Your task to perform on an android device: visit the assistant section in the google photos Image 0: 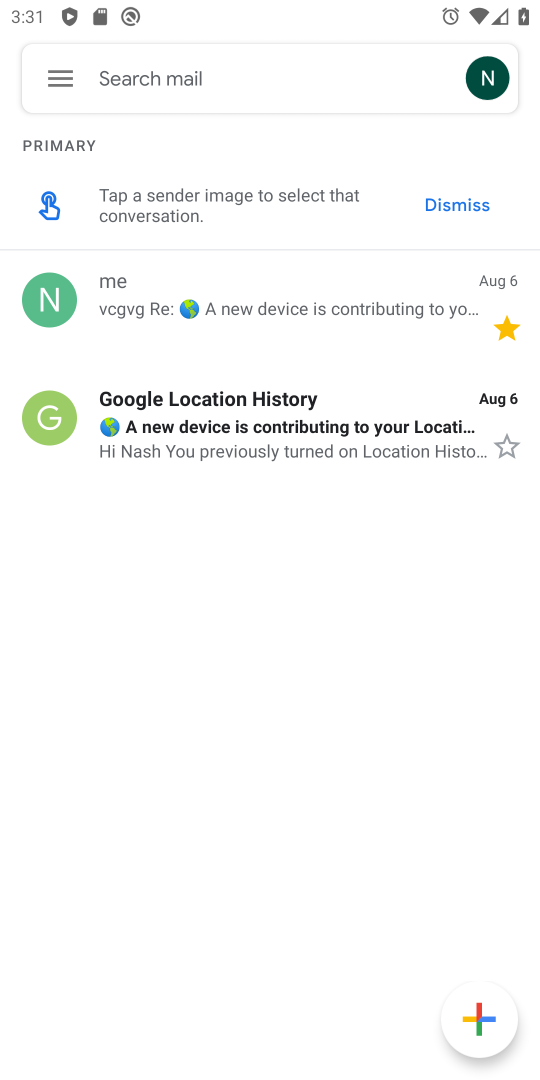
Step 0: press back button
Your task to perform on an android device: visit the assistant section in the google photos Image 1: 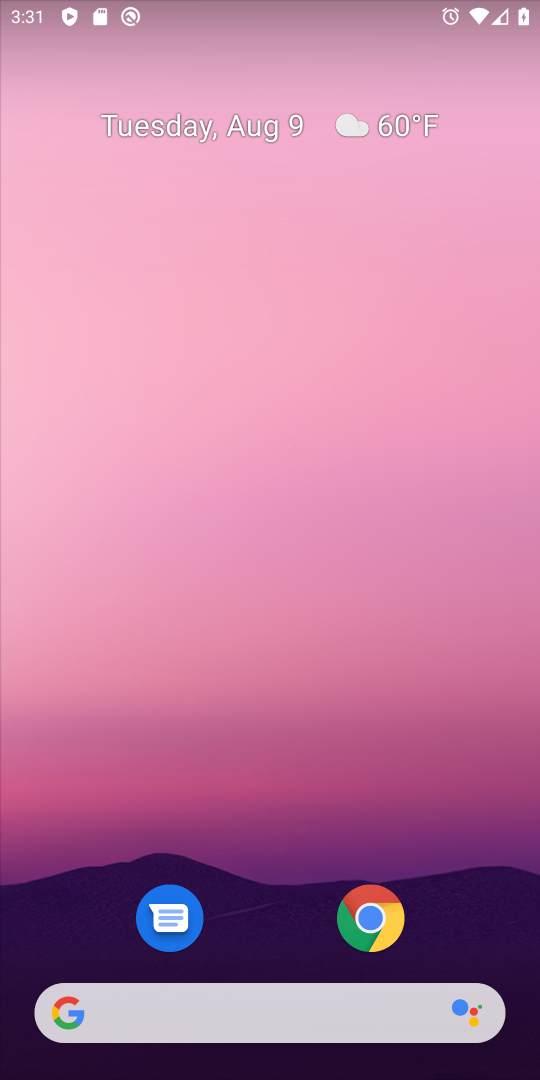
Step 1: drag from (242, 930) to (277, 12)
Your task to perform on an android device: visit the assistant section in the google photos Image 2: 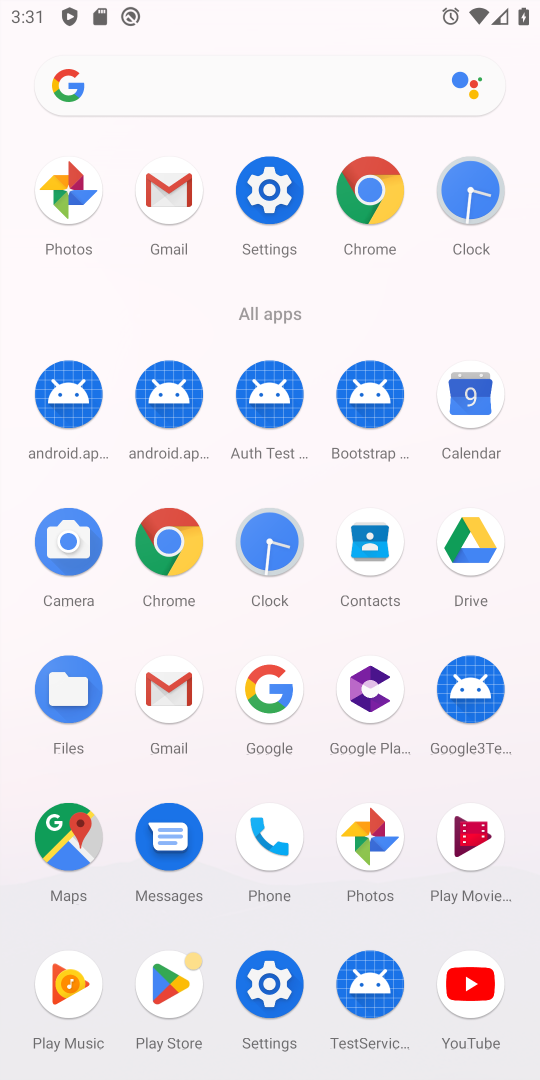
Step 2: click (377, 853)
Your task to perform on an android device: visit the assistant section in the google photos Image 3: 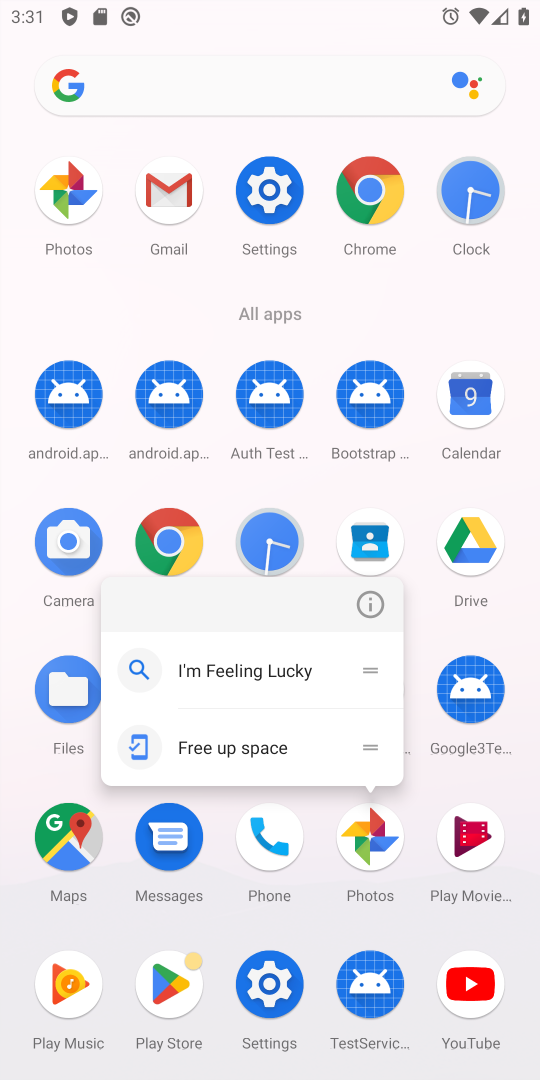
Step 3: click (360, 848)
Your task to perform on an android device: visit the assistant section in the google photos Image 4: 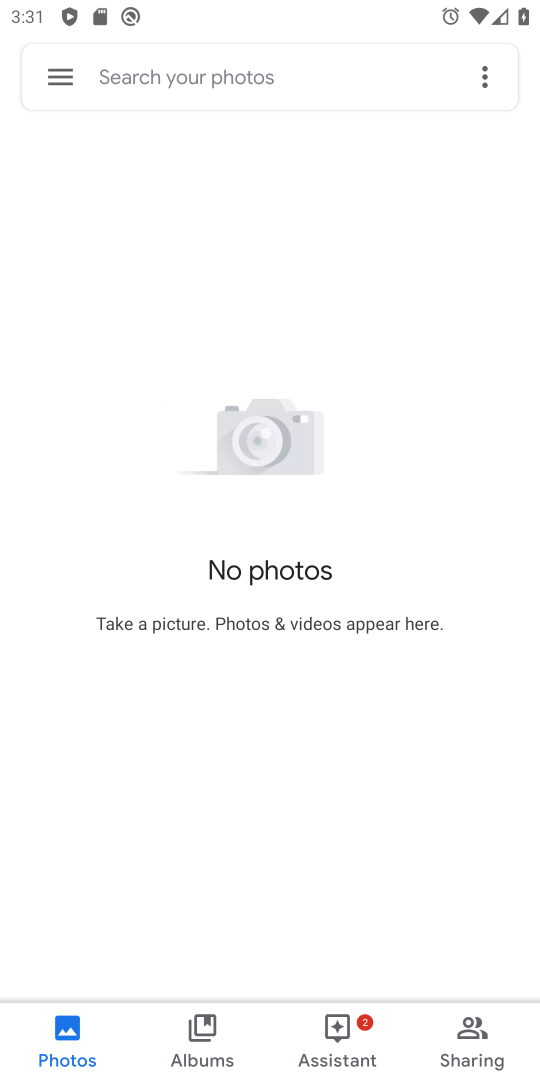
Step 4: click (331, 1062)
Your task to perform on an android device: visit the assistant section in the google photos Image 5: 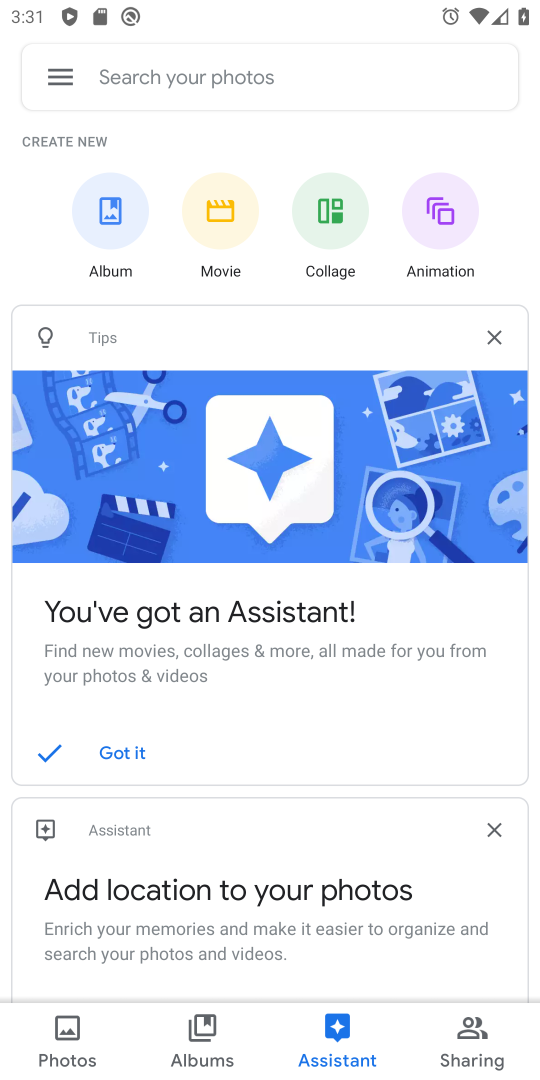
Step 5: task complete